Your task to perform on an android device: toggle priority inbox in the gmail app Image 0: 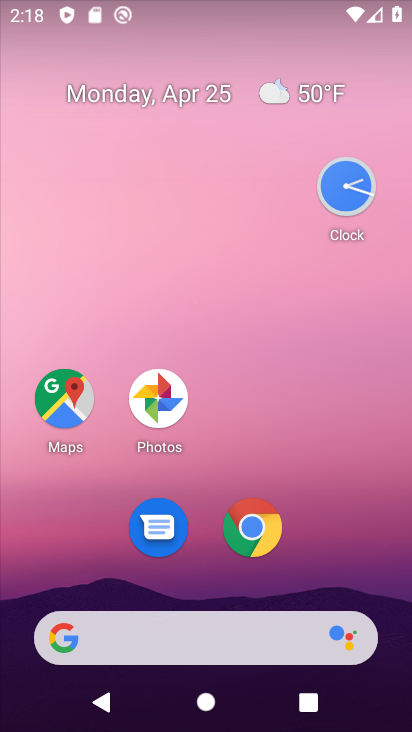
Step 0: drag from (357, 597) to (347, 132)
Your task to perform on an android device: toggle priority inbox in the gmail app Image 1: 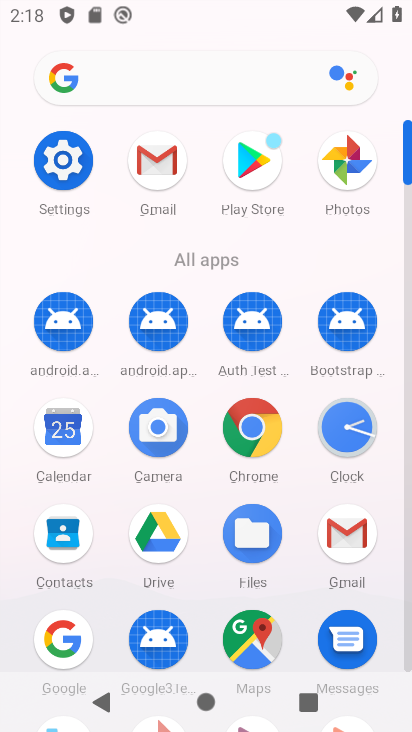
Step 1: click (333, 535)
Your task to perform on an android device: toggle priority inbox in the gmail app Image 2: 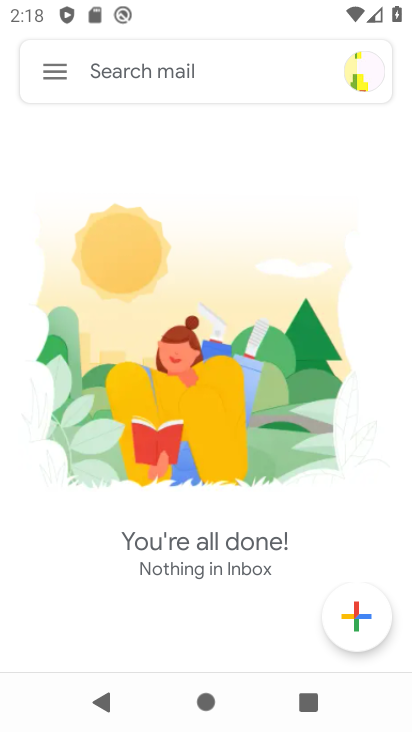
Step 2: click (60, 91)
Your task to perform on an android device: toggle priority inbox in the gmail app Image 3: 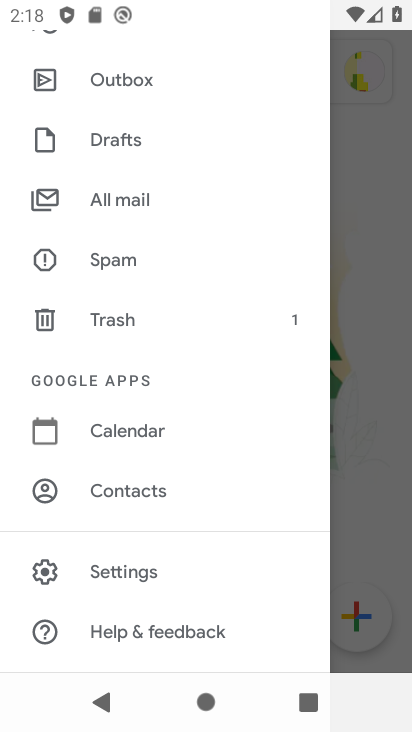
Step 3: click (190, 570)
Your task to perform on an android device: toggle priority inbox in the gmail app Image 4: 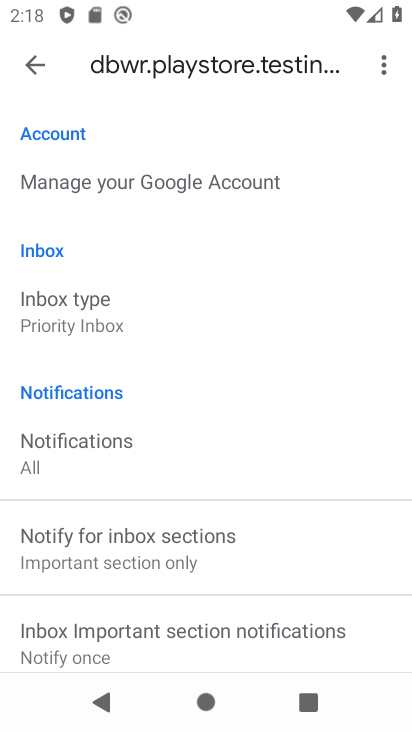
Step 4: click (87, 314)
Your task to perform on an android device: toggle priority inbox in the gmail app Image 5: 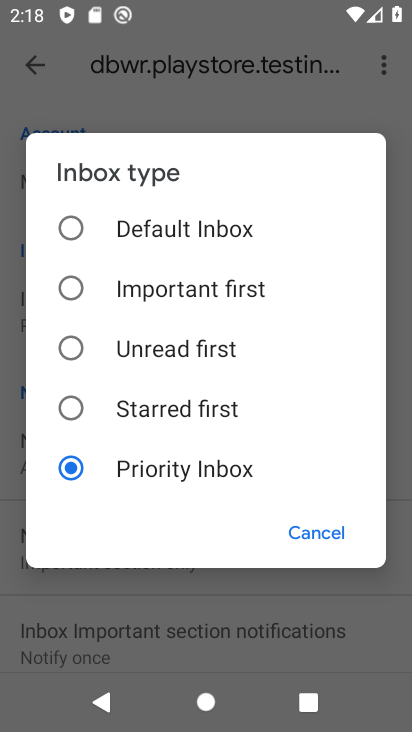
Step 5: click (146, 227)
Your task to perform on an android device: toggle priority inbox in the gmail app Image 6: 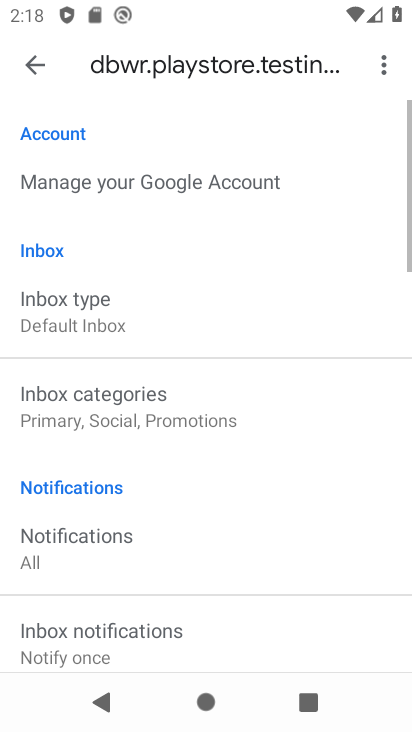
Step 6: task complete